Your task to perform on an android device: Open network settings Image 0: 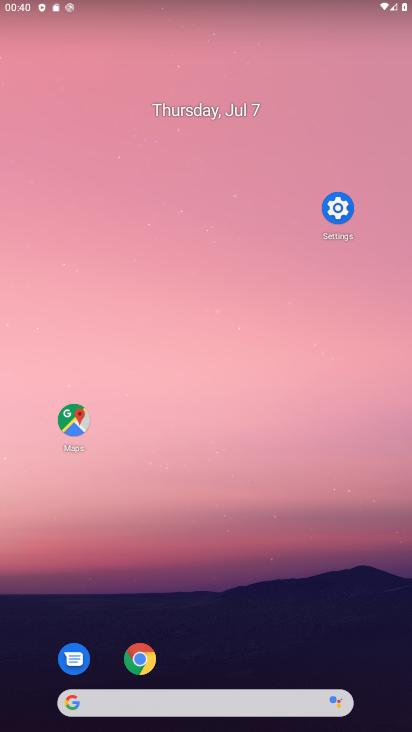
Step 0: drag from (103, 27) to (126, 1)
Your task to perform on an android device: Open network settings Image 1: 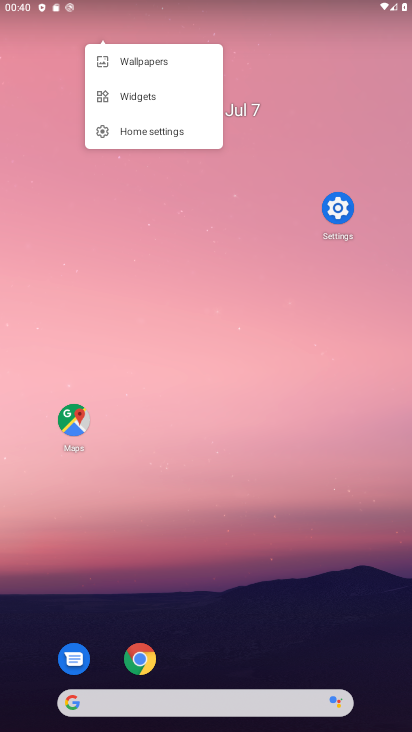
Step 1: drag from (293, 701) to (132, 53)
Your task to perform on an android device: Open network settings Image 2: 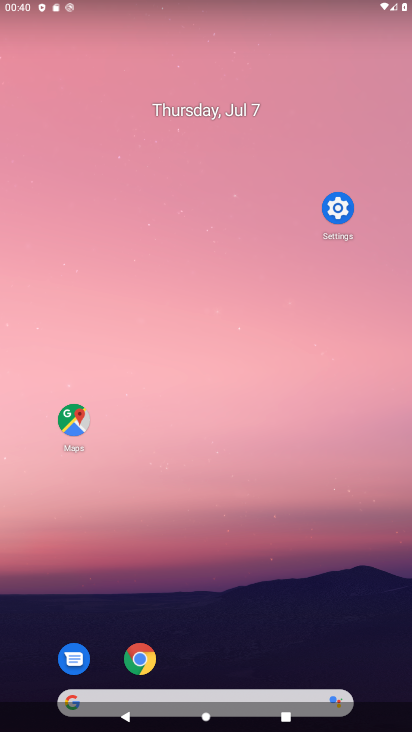
Step 2: drag from (252, 546) to (146, 47)
Your task to perform on an android device: Open network settings Image 3: 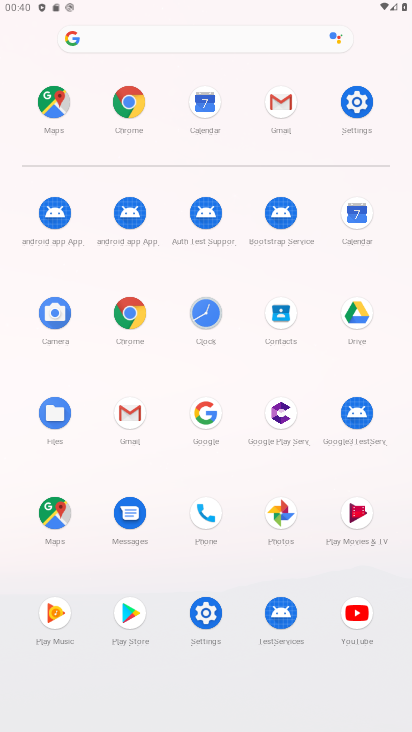
Step 3: click (106, 142)
Your task to perform on an android device: Open network settings Image 4: 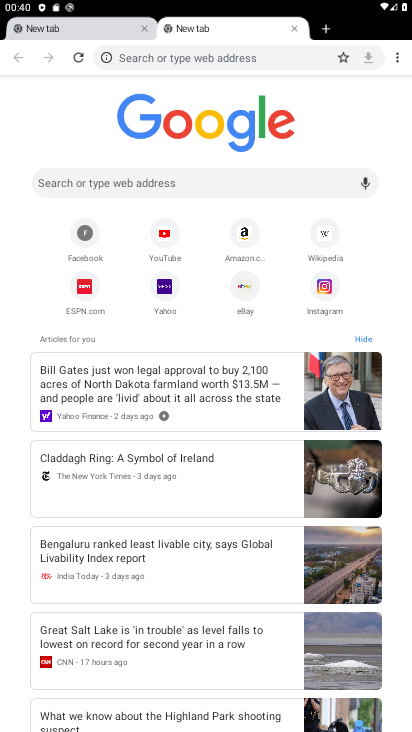
Step 4: press back button
Your task to perform on an android device: Open network settings Image 5: 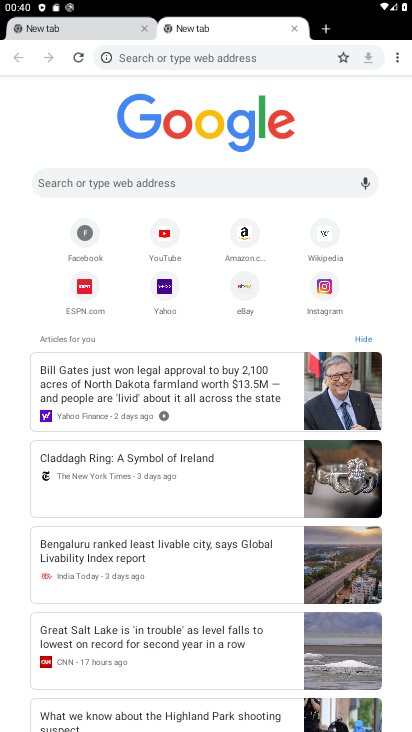
Step 5: press back button
Your task to perform on an android device: Open network settings Image 6: 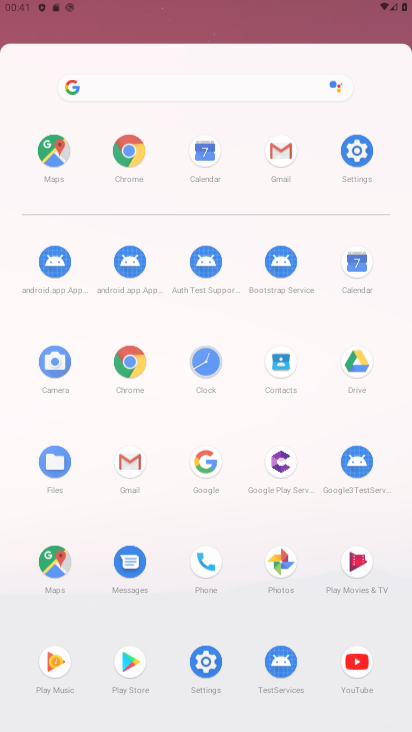
Step 6: press back button
Your task to perform on an android device: Open network settings Image 7: 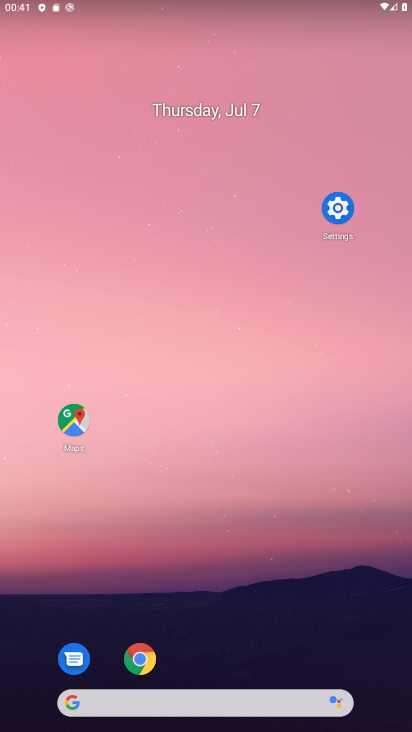
Step 7: drag from (254, 608) to (143, 4)
Your task to perform on an android device: Open network settings Image 8: 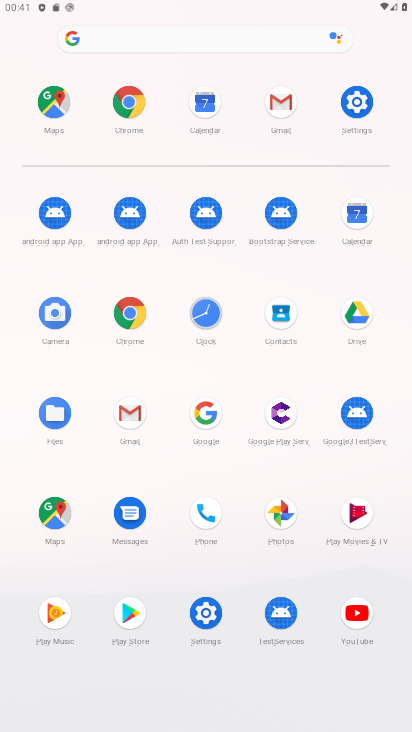
Step 8: click (361, 100)
Your task to perform on an android device: Open network settings Image 9: 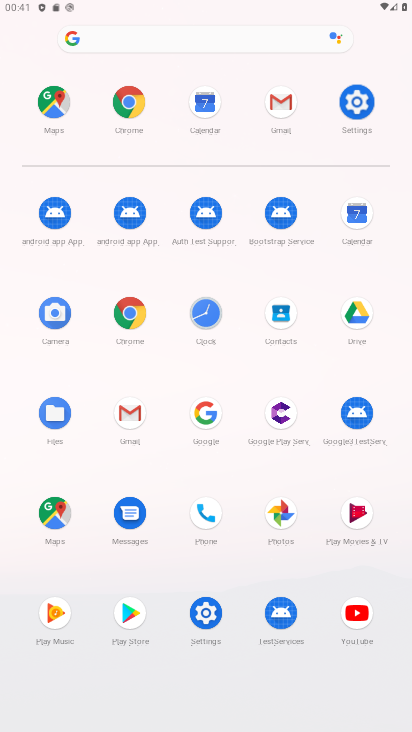
Step 9: click (361, 100)
Your task to perform on an android device: Open network settings Image 10: 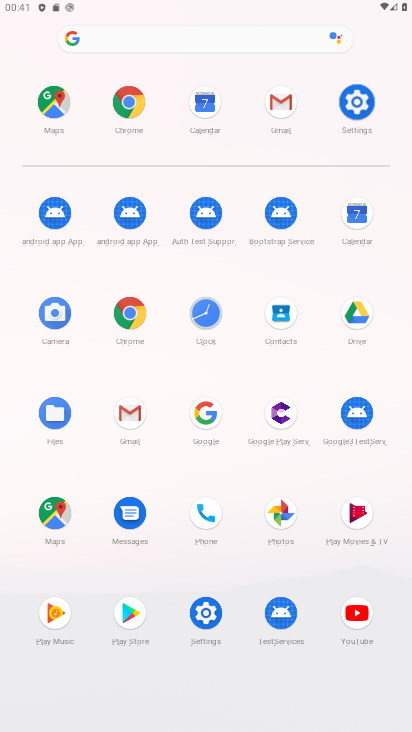
Step 10: click (361, 100)
Your task to perform on an android device: Open network settings Image 11: 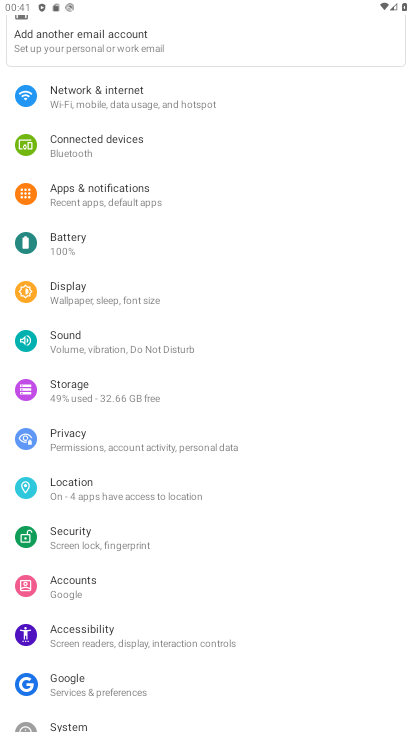
Step 11: click (106, 97)
Your task to perform on an android device: Open network settings Image 12: 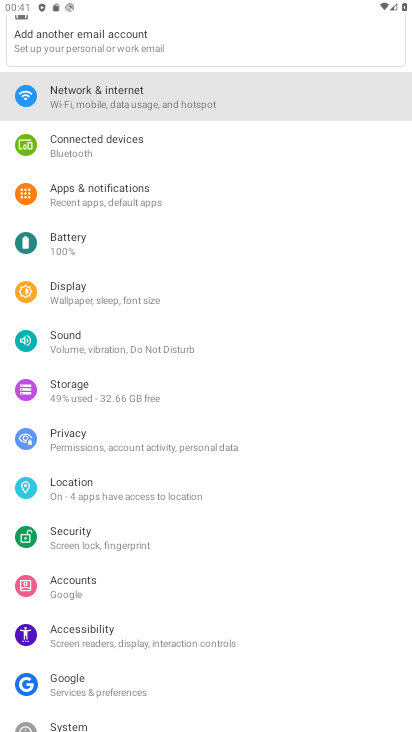
Step 12: click (116, 91)
Your task to perform on an android device: Open network settings Image 13: 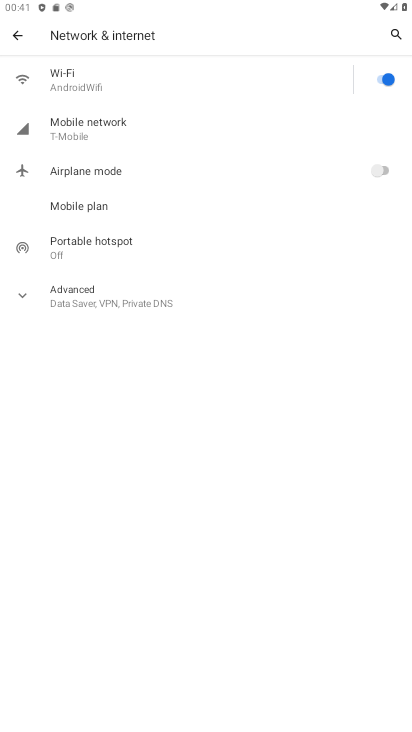
Step 13: task complete